Your task to perform on an android device: Search for Mexican restaurants on Maps Image 0: 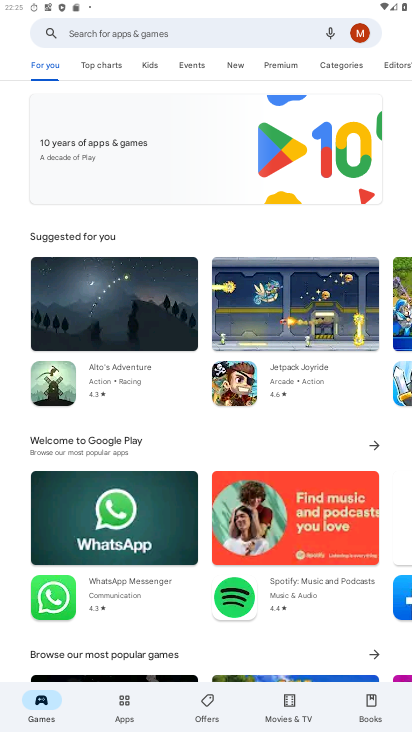
Step 0: press home button
Your task to perform on an android device: Search for Mexican restaurants on Maps Image 1: 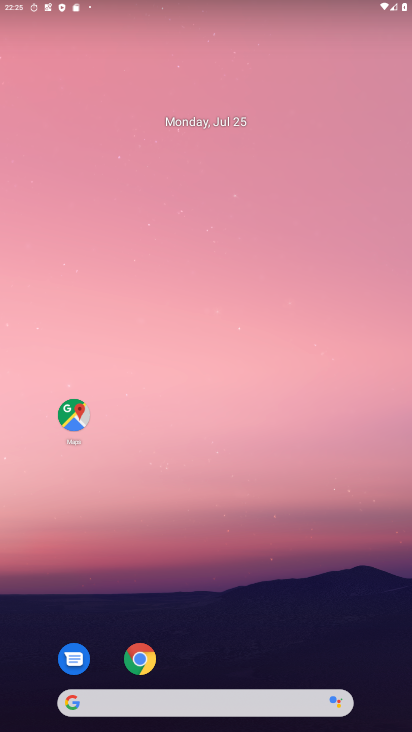
Step 1: click (67, 434)
Your task to perform on an android device: Search for Mexican restaurants on Maps Image 2: 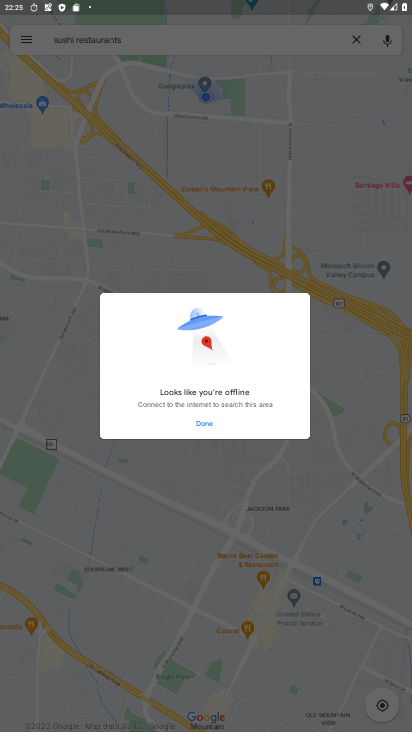
Step 2: click (196, 60)
Your task to perform on an android device: Search for Mexican restaurants on Maps Image 3: 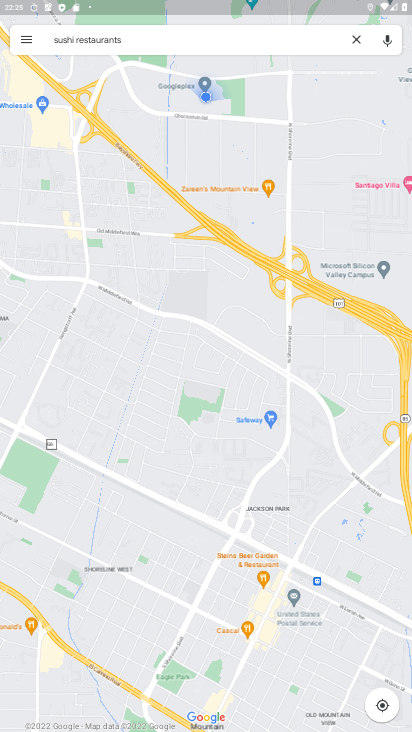
Step 3: click (202, 46)
Your task to perform on an android device: Search for Mexican restaurants on Maps Image 4: 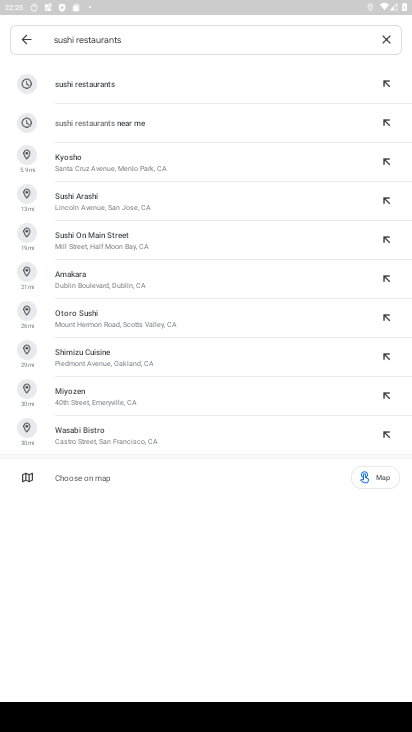
Step 4: click (382, 41)
Your task to perform on an android device: Search for Mexican restaurants on Maps Image 5: 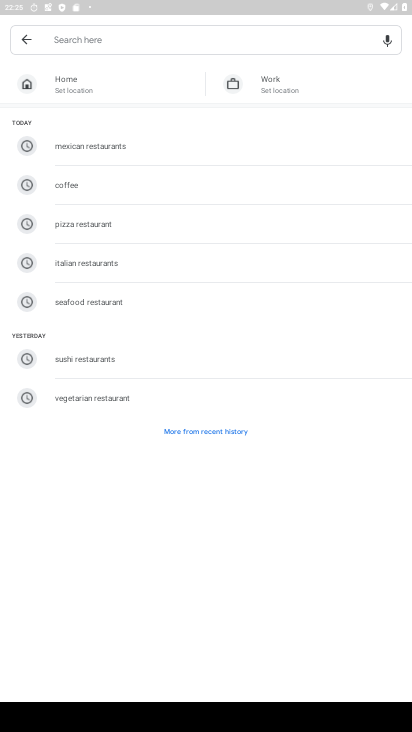
Step 5: type "Mexican restaurants"
Your task to perform on an android device: Search for Mexican restaurants on Maps Image 6: 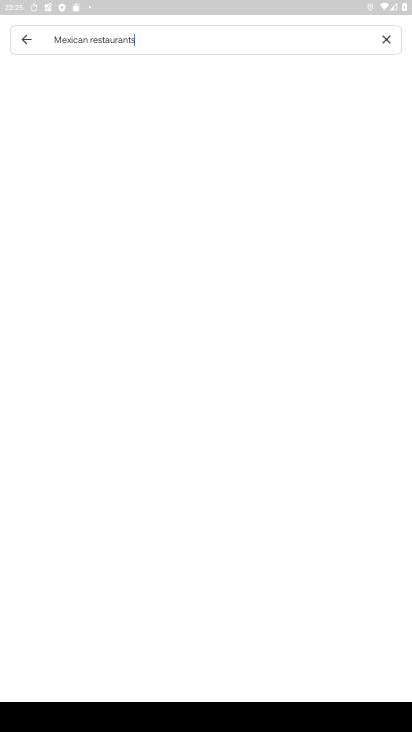
Step 6: type ""
Your task to perform on an android device: Search for Mexican restaurants on Maps Image 7: 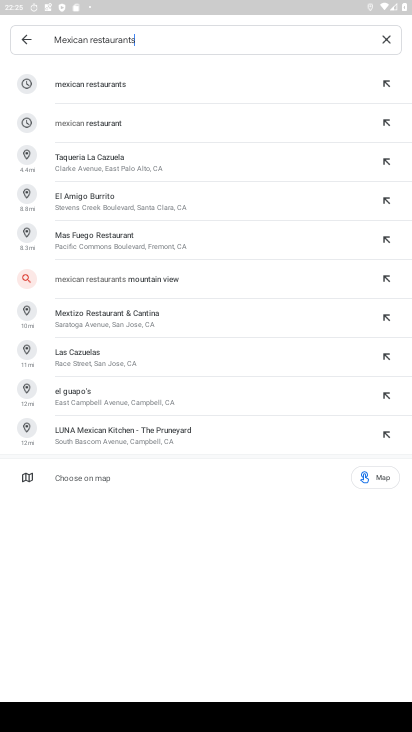
Step 7: click (134, 84)
Your task to perform on an android device: Search for Mexican restaurants on Maps Image 8: 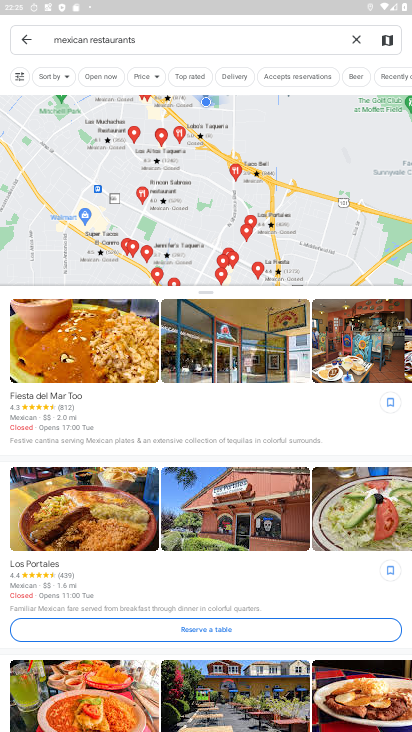
Step 8: task complete